Your task to perform on an android device: Open Chrome and go to settings Image 0: 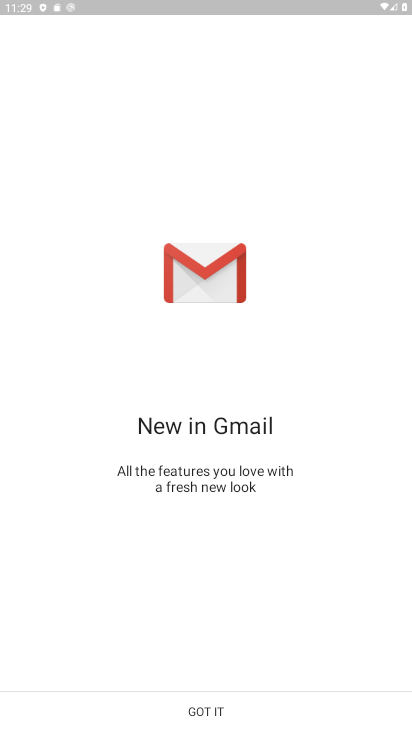
Step 0: press home button
Your task to perform on an android device: Open Chrome and go to settings Image 1: 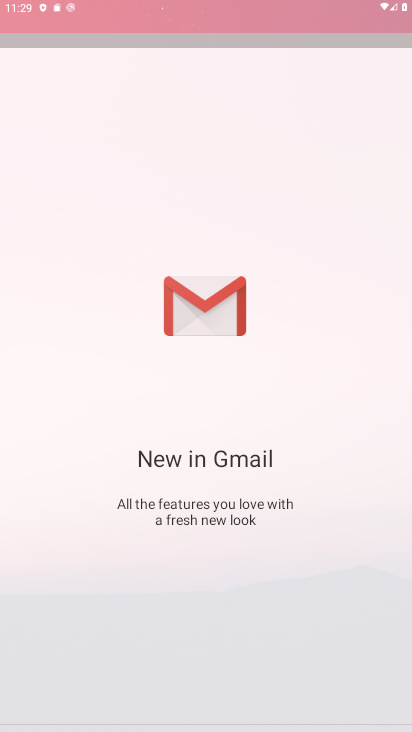
Step 1: drag from (248, 3) to (317, 9)
Your task to perform on an android device: Open Chrome and go to settings Image 2: 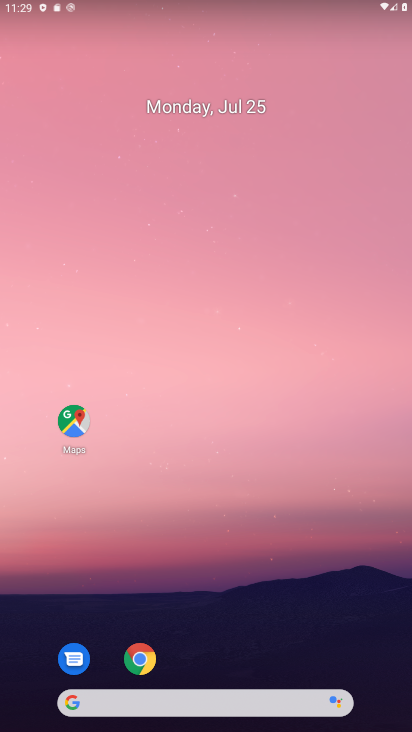
Step 2: click (134, 668)
Your task to perform on an android device: Open Chrome and go to settings Image 3: 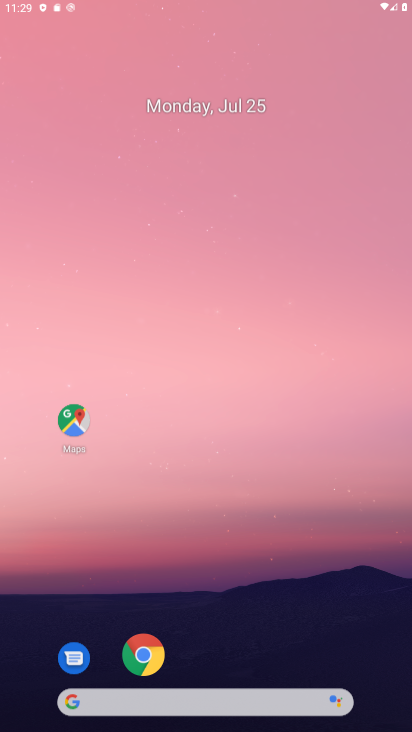
Step 3: click (134, 668)
Your task to perform on an android device: Open Chrome and go to settings Image 4: 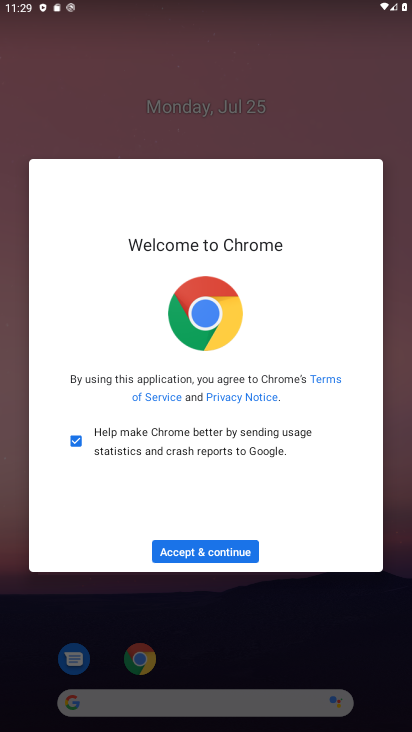
Step 4: click (227, 538)
Your task to perform on an android device: Open Chrome and go to settings Image 5: 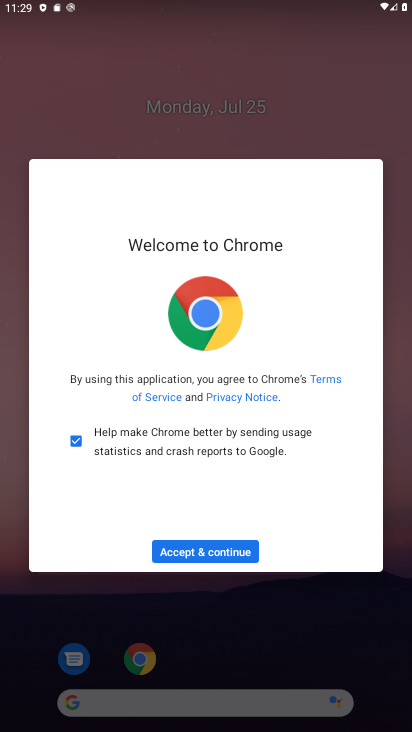
Step 5: click (339, 547)
Your task to perform on an android device: Open Chrome and go to settings Image 6: 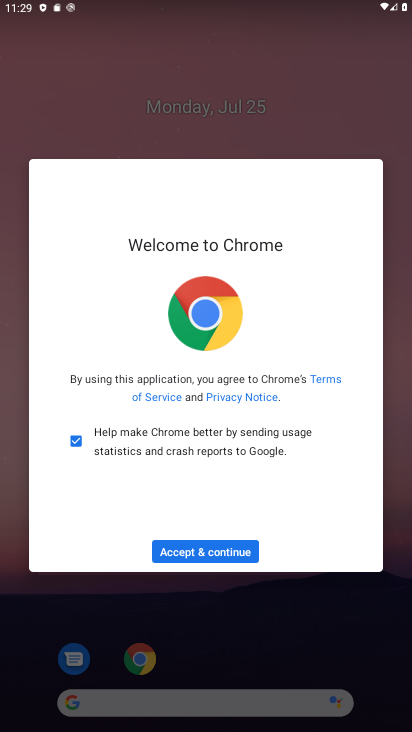
Step 6: click (339, 557)
Your task to perform on an android device: Open Chrome and go to settings Image 7: 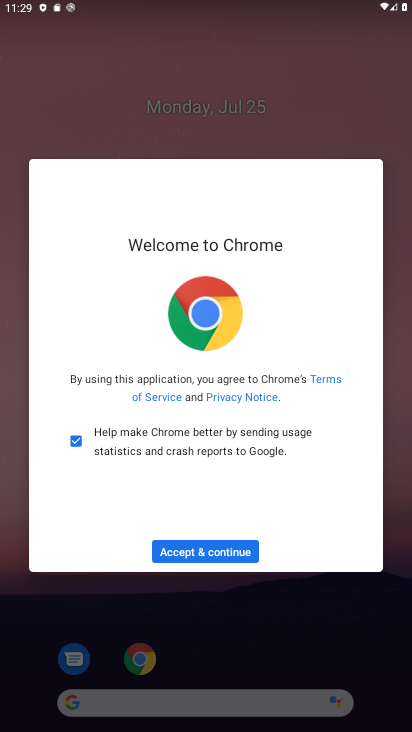
Step 7: click (219, 550)
Your task to perform on an android device: Open Chrome and go to settings Image 8: 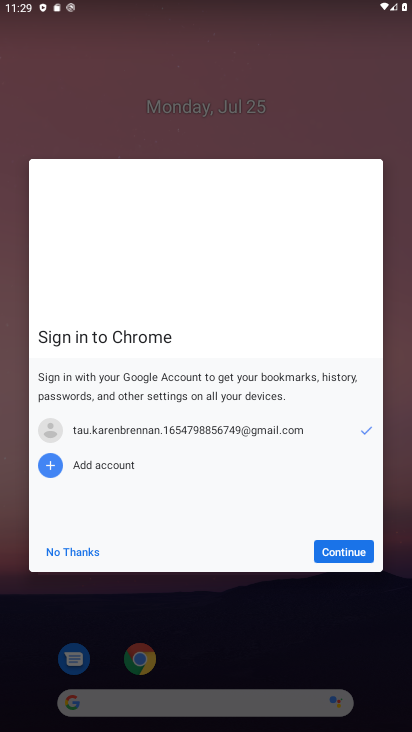
Step 8: click (369, 560)
Your task to perform on an android device: Open Chrome and go to settings Image 9: 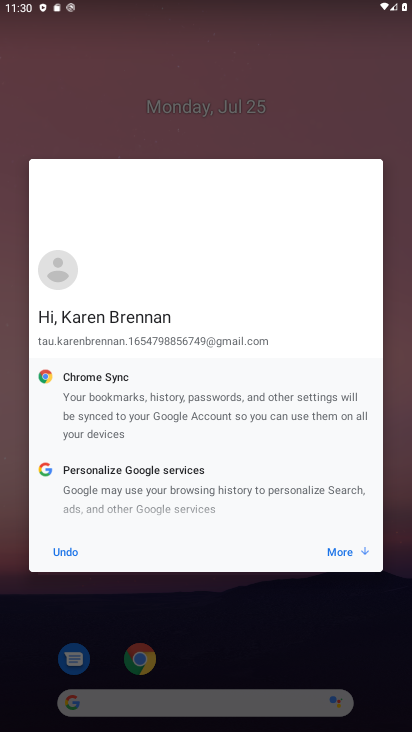
Step 9: click (369, 560)
Your task to perform on an android device: Open Chrome and go to settings Image 10: 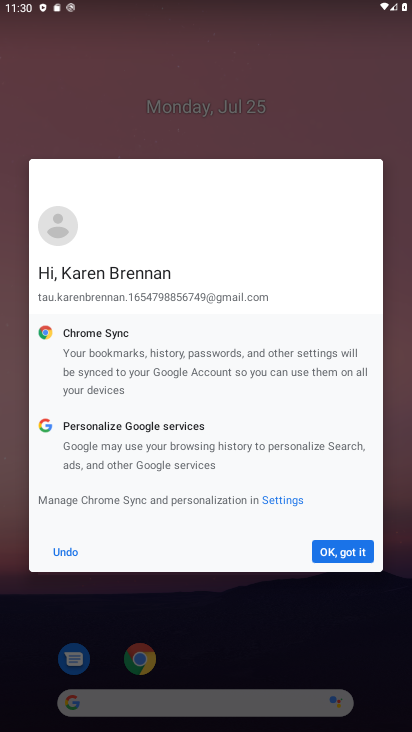
Step 10: click (363, 556)
Your task to perform on an android device: Open Chrome and go to settings Image 11: 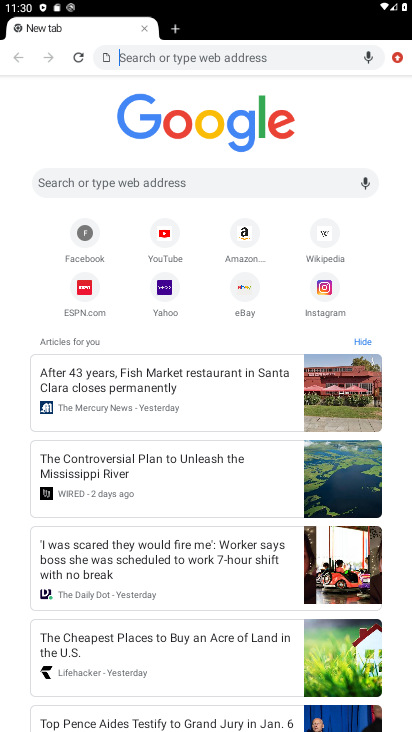
Step 11: task complete